Your task to perform on an android device: allow notifications from all sites in the chrome app Image 0: 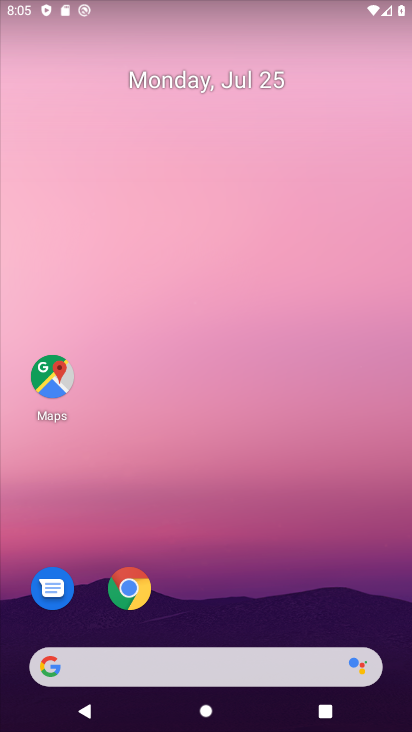
Step 0: drag from (212, 637) to (212, 236)
Your task to perform on an android device: allow notifications from all sites in the chrome app Image 1: 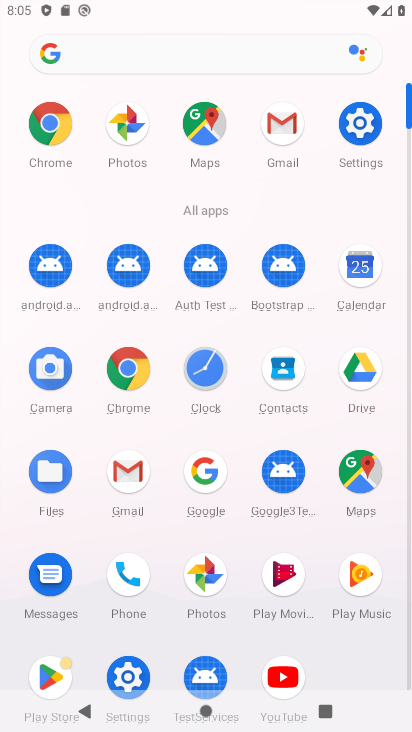
Step 1: click (123, 375)
Your task to perform on an android device: allow notifications from all sites in the chrome app Image 2: 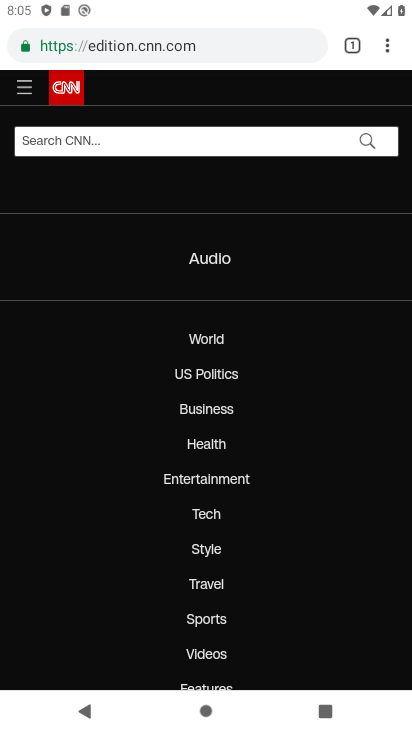
Step 2: click (386, 42)
Your task to perform on an android device: allow notifications from all sites in the chrome app Image 3: 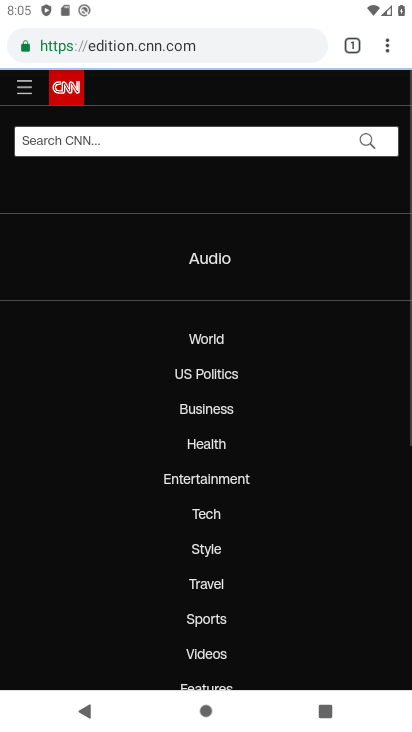
Step 3: click (386, 42)
Your task to perform on an android device: allow notifications from all sites in the chrome app Image 4: 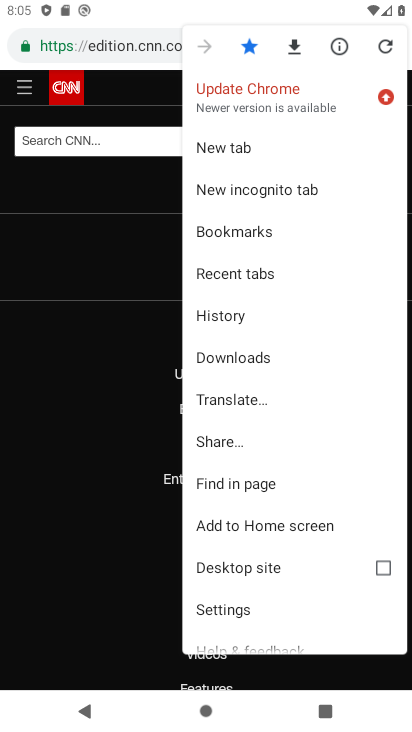
Step 4: click (227, 604)
Your task to perform on an android device: allow notifications from all sites in the chrome app Image 5: 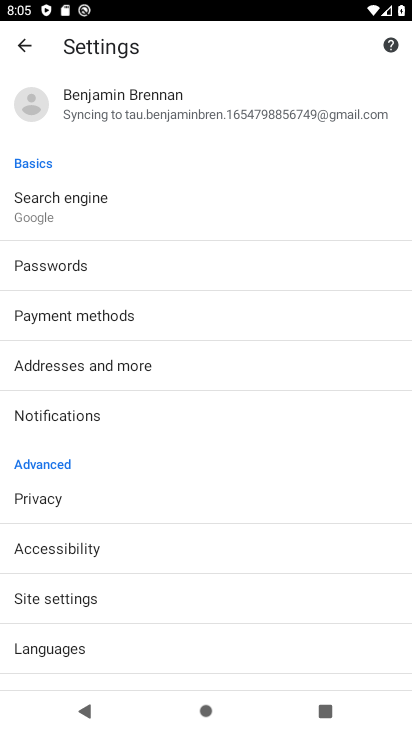
Step 5: click (31, 594)
Your task to perform on an android device: allow notifications from all sites in the chrome app Image 6: 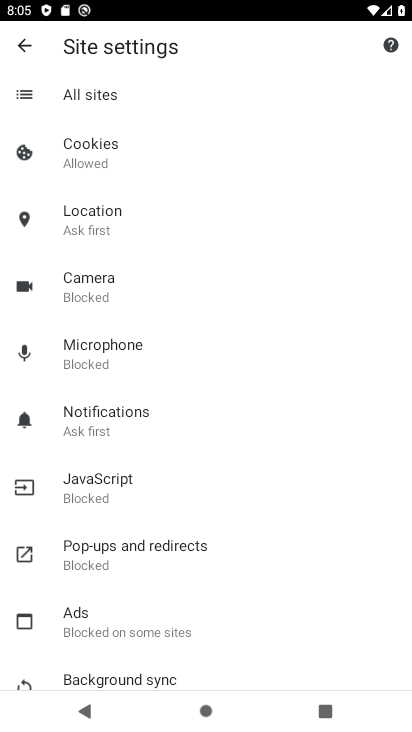
Step 6: click (98, 422)
Your task to perform on an android device: allow notifications from all sites in the chrome app Image 7: 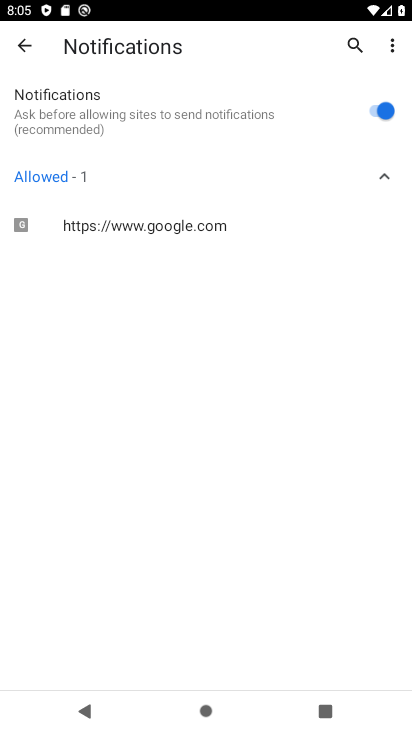
Step 7: task complete